Your task to perform on an android device: add a contact in the contacts app Image 0: 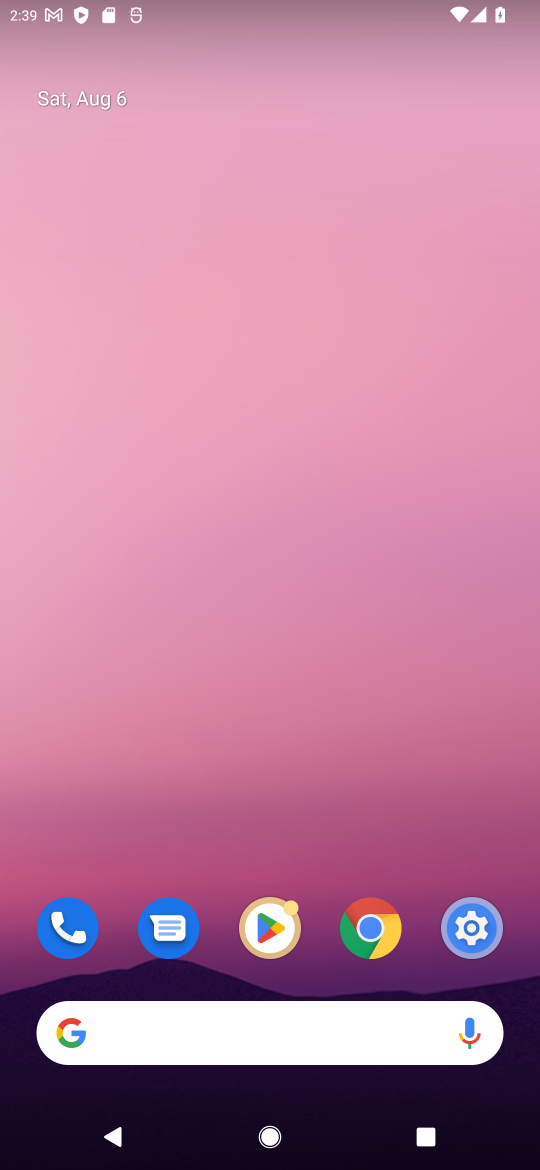
Step 0: drag from (228, 966) to (286, 390)
Your task to perform on an android device: add a contact in the contacts app Image 1: 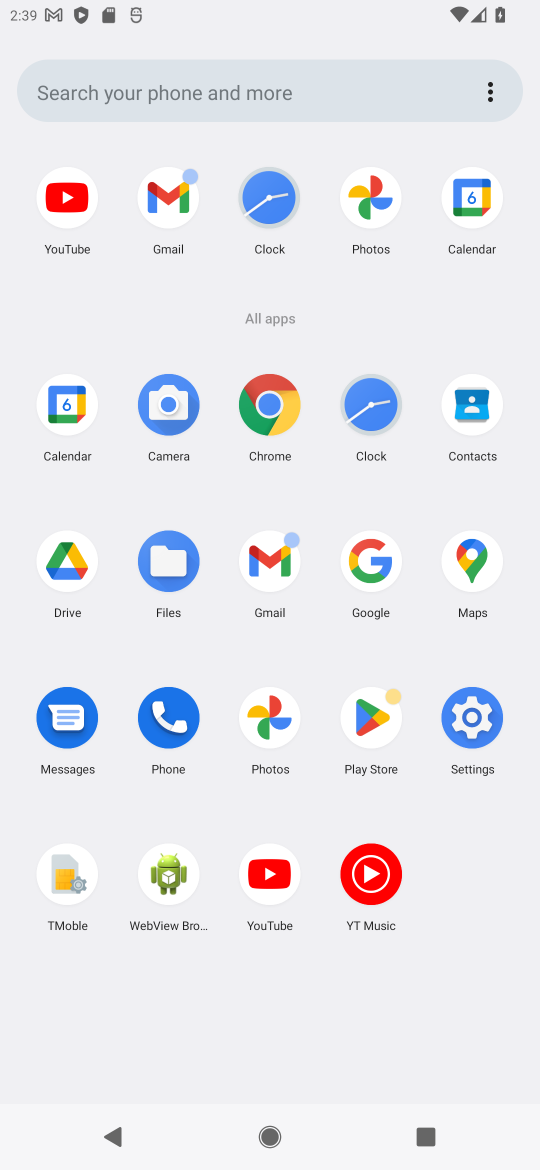
Step 1: click (468, 395)
Your task to perform on an android device: add a contact in the contacts app Image 2: 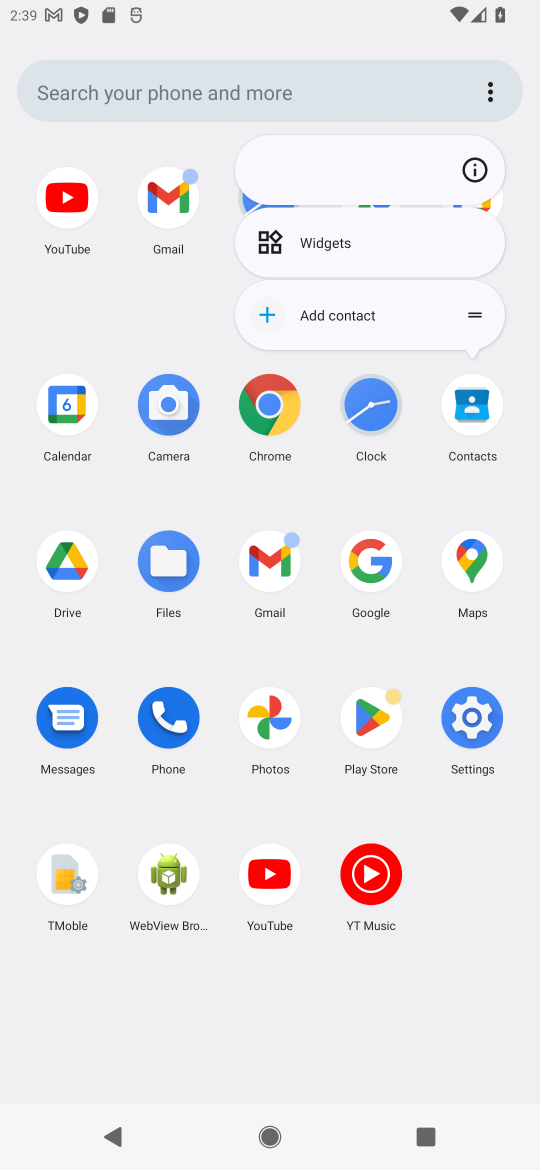
Step 2: click (459, 165)
Your task to perform on an android device: add a contact in the contacts app Image 3: 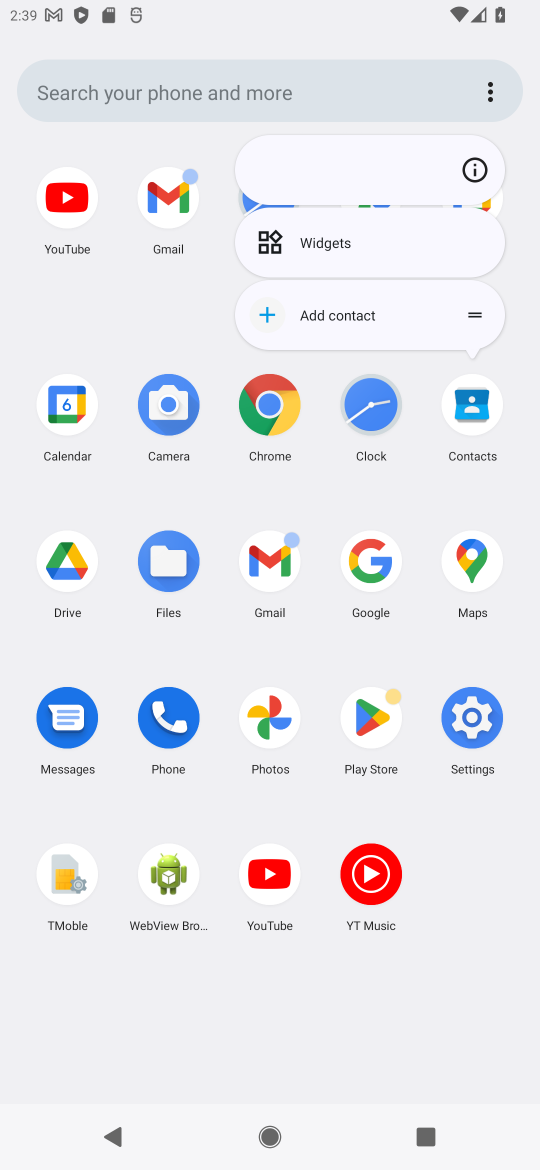
Step 3: click (467, 170)
Your task to perform on an android device: add a contact in the contacts app Image 4: 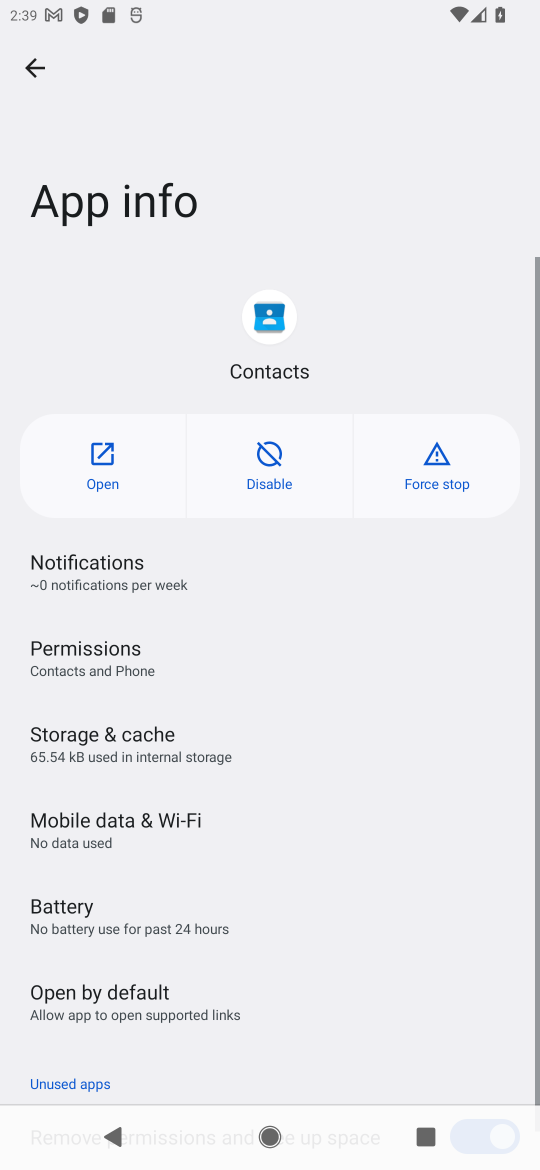
Step 4: click (97, 443)
Your task to perform on an android device: add a contact in the contacts app Image 5: 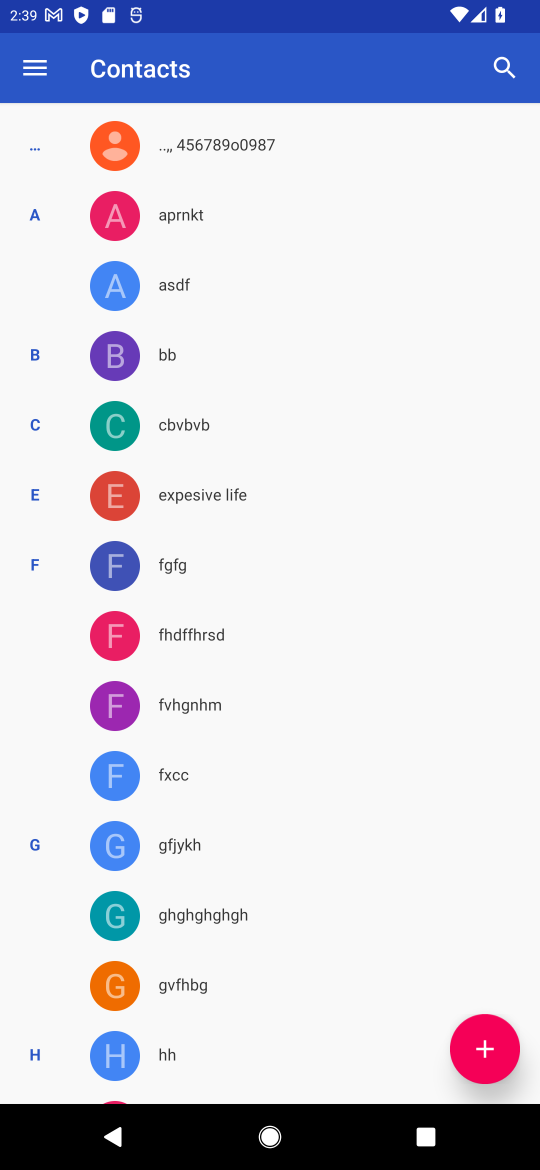
Step 5: click (479, 1049)
Your task to perform on an android device: add a contact in the contacts app Image 6: 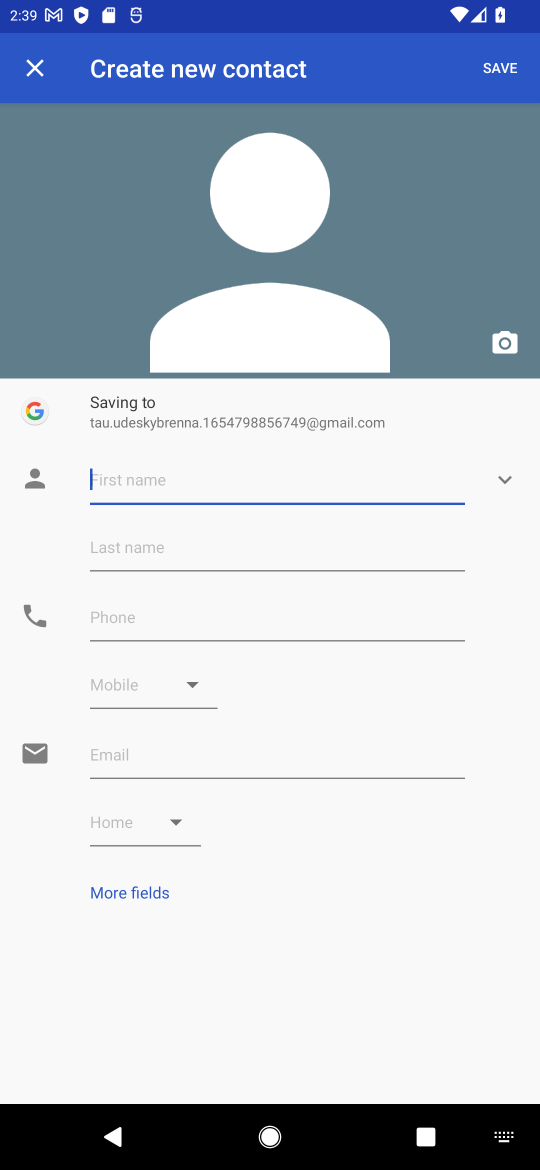
Step 6: click (242, 486)
Your task to perform on an android device: add a contact in the contacts app Image 7: 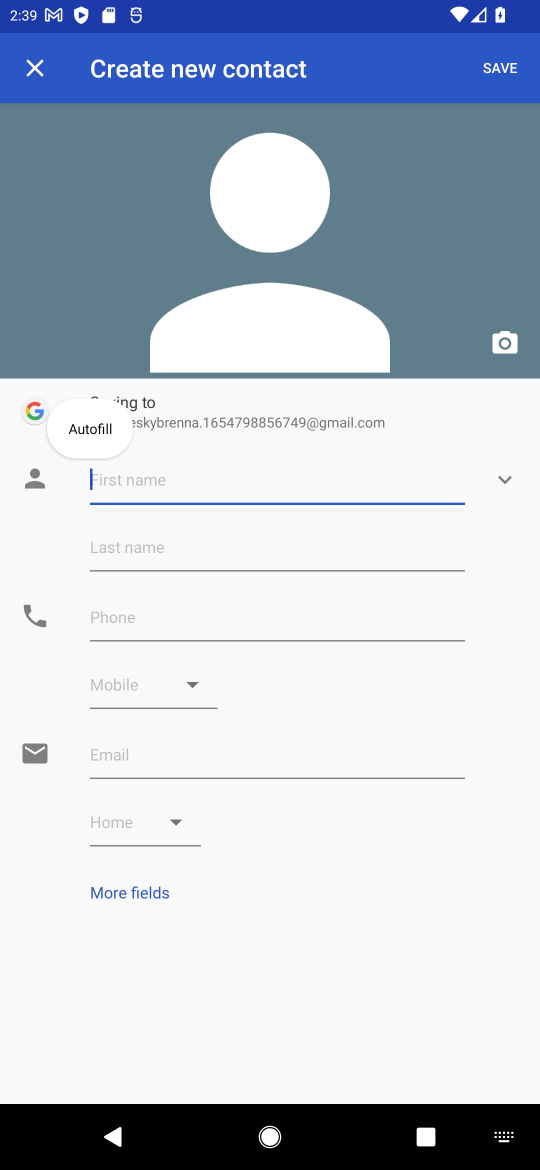
Step 7: type "majslajs"
Your task to perform on an android device: add a contact in the contacts app Image 8: 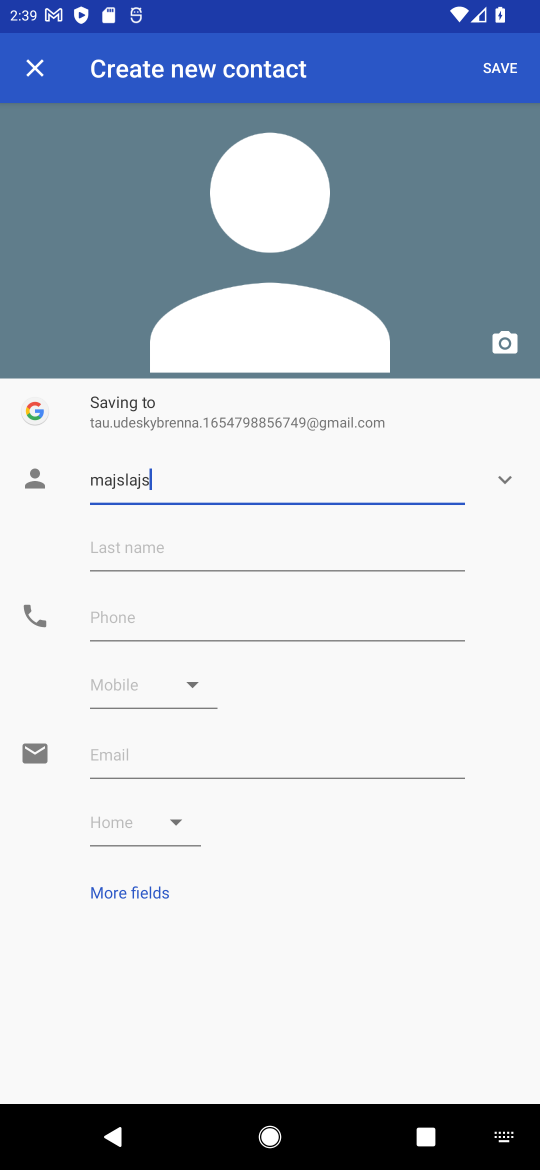
Step 8: click (499, 50)
Your task to perform on an android device: add a contact in the contacts app Image 9: 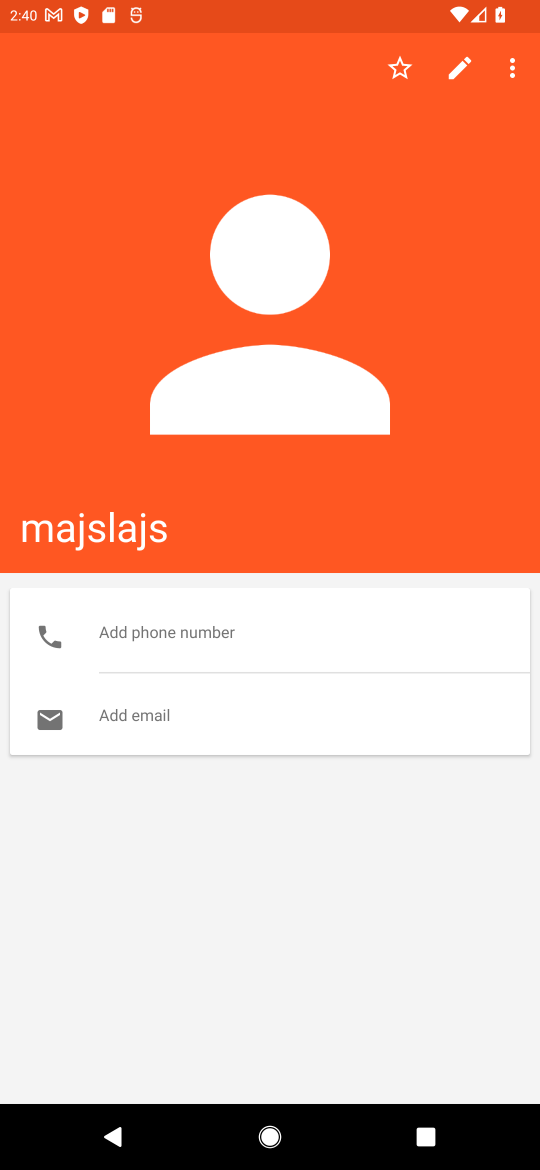
Step 9: task complete